Your task to perform on an android device: Turn on the flashlight Image 0: 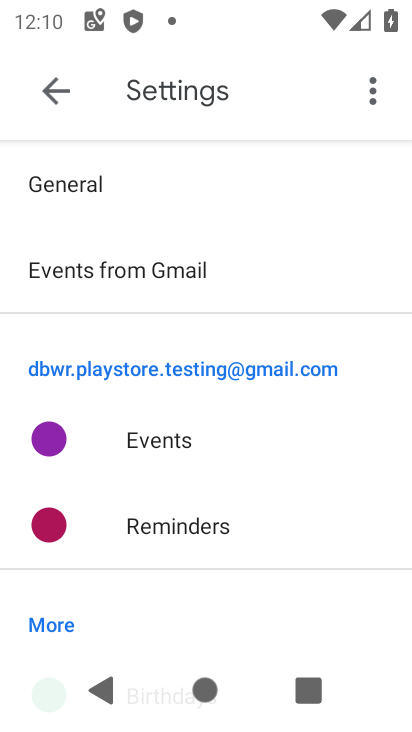
Step 0: click (63, 85)
Your task to perform on an android device: Turn on the flashlight Image 1: 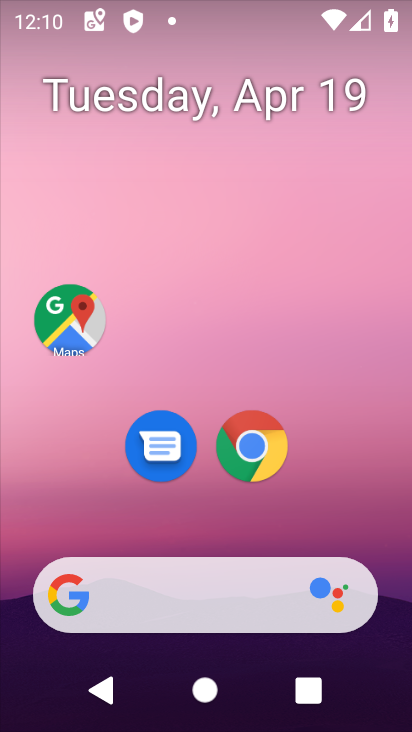
Step 1: drag from (299, 466) to (347, 115)
Your task to perform on an android device: Turn on the flashlight Image 2: 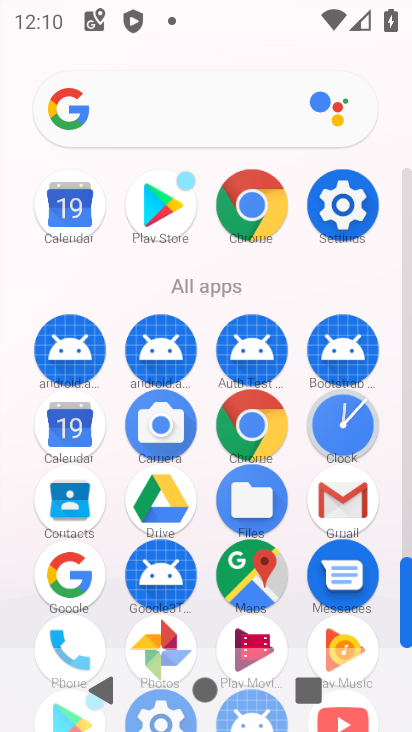
Step 2: click (344, 221)
Your task to perform on an android device: Turn on the flashlight Image 3: 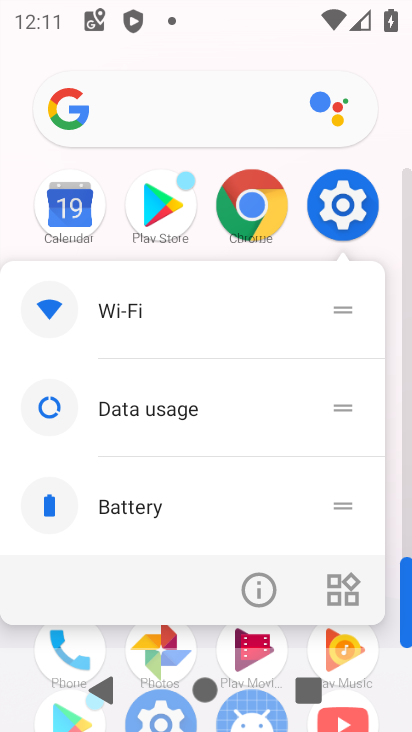
Step 3: click (348, 200)
Your task to perform on an android device: Turn on the flashlight Image 4: 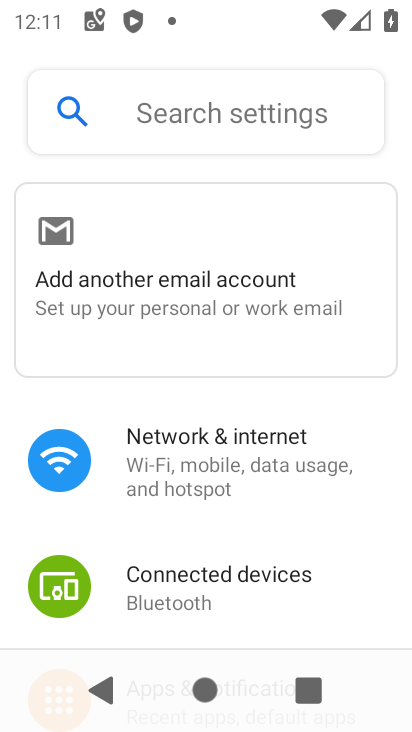
Step 4: click (315, 110)
Your task to perform on an android device: Turn on the flashlight Image 5: 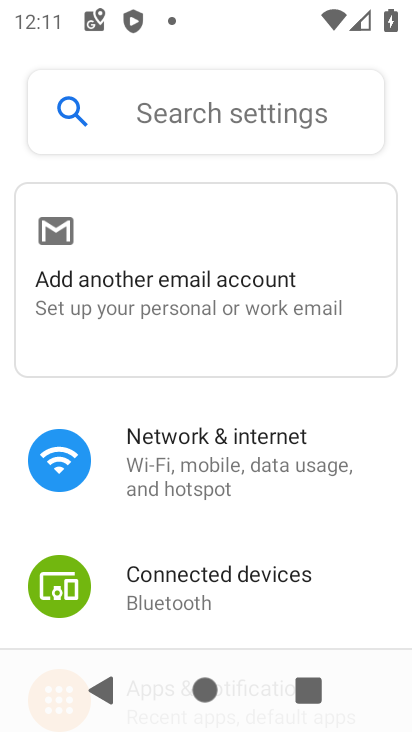
Step 5: click (278, 102)
Your task to perform on an android device: Turn on the flashlight Image 6: 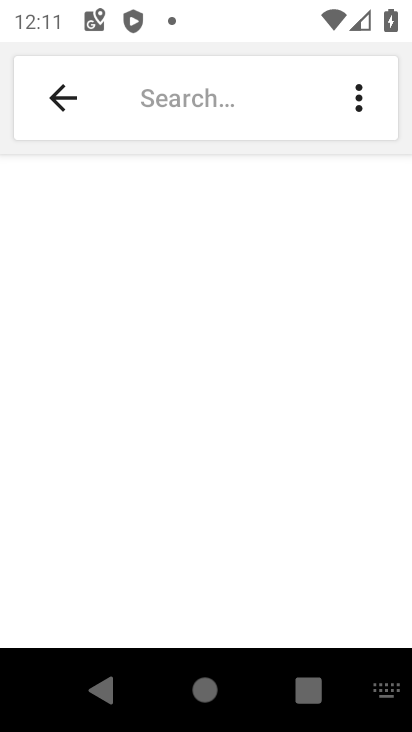
Step 6: type "flash light"
Your task to perform on an android device: Turn on the flashlight Image 7: 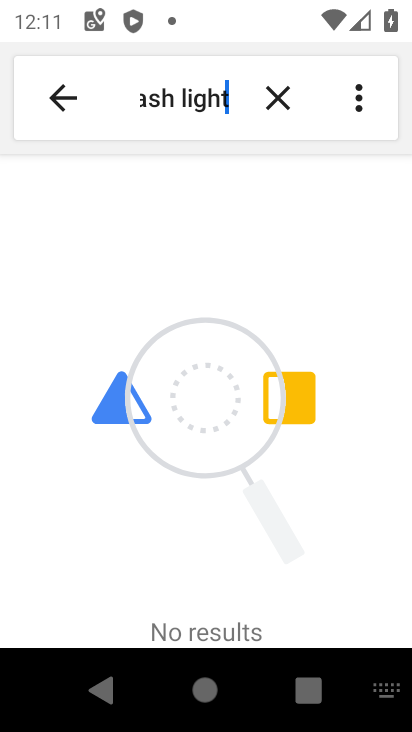
Step 7: click (278, 97)
Your task to perform on an android device: Turn on the flashlight Image 8: 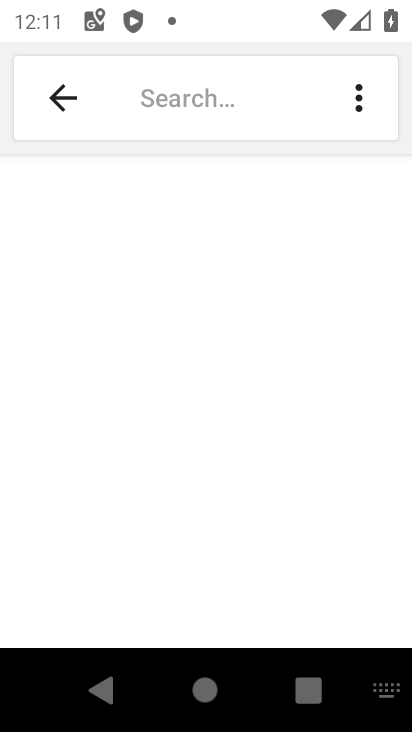
Step 8: type "flashlight"
Your task to perform on an android device: Turn on the flashlight Image 9: 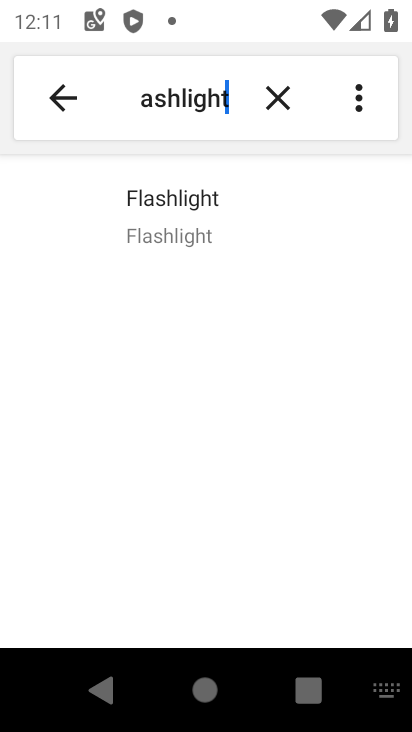
Step 9: click (206, 201)
Your task to perform on an android device: Turn on the flashlight Image 10: 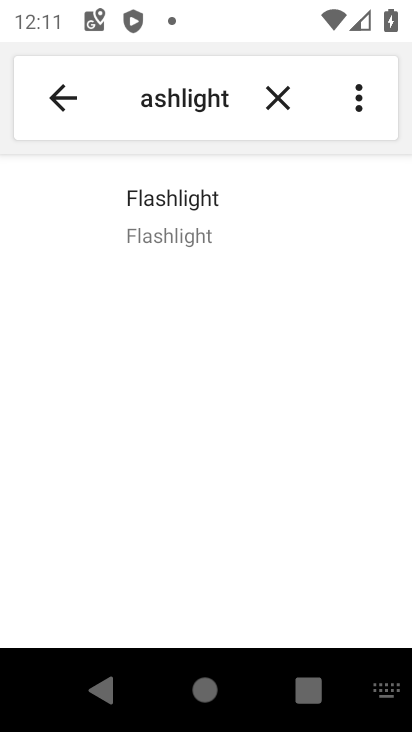
Step 10: task complete